Your task to perform on an android device: open wifi settings Image 0: 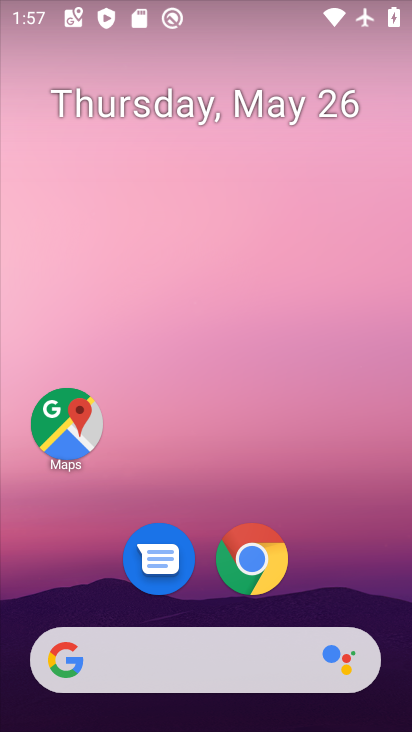
Step 0: drag from (184, 674) to (267, 119)
Your task to perform on an android device: open wifi settings Image 1: 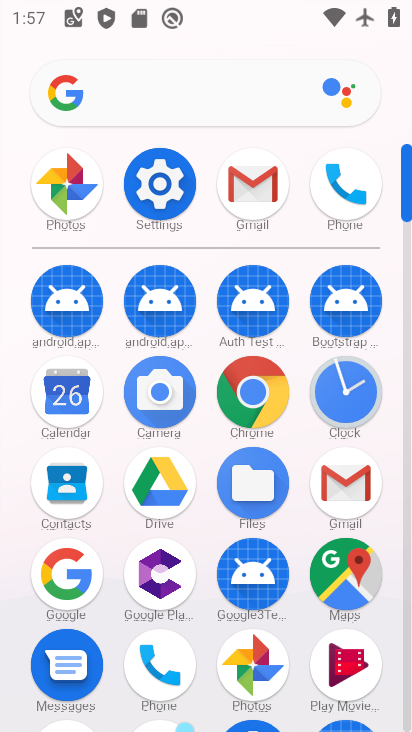
Step 1: click (152, 176)
Your task to perform on an android device: open wifi settings Image 2: 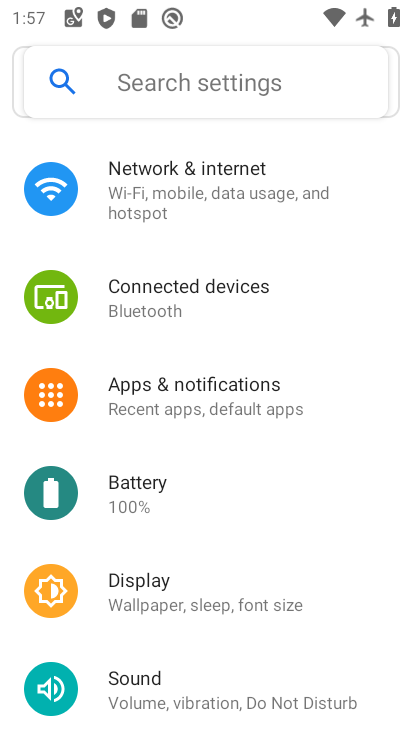
Step 2: click (178, 187)
Your task to perform on an android device: open wifi settings Image 3: 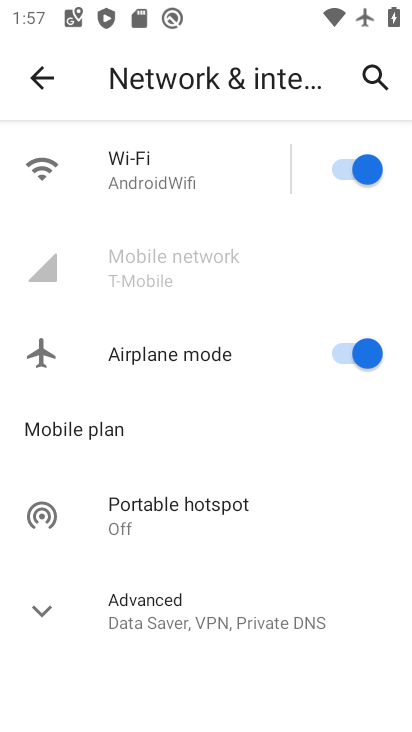
Step 3: click (157, 172)
Your task to perform on an android device: open wifi settings Image 4: 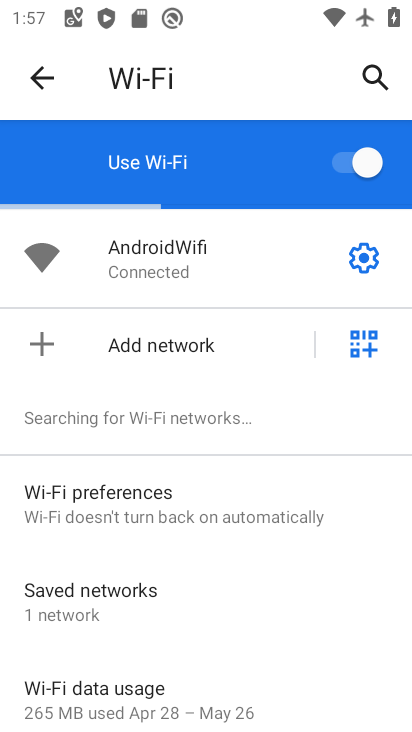
Step 4: task complete